Your task to perform on an android device: Open Android settings Image 0: 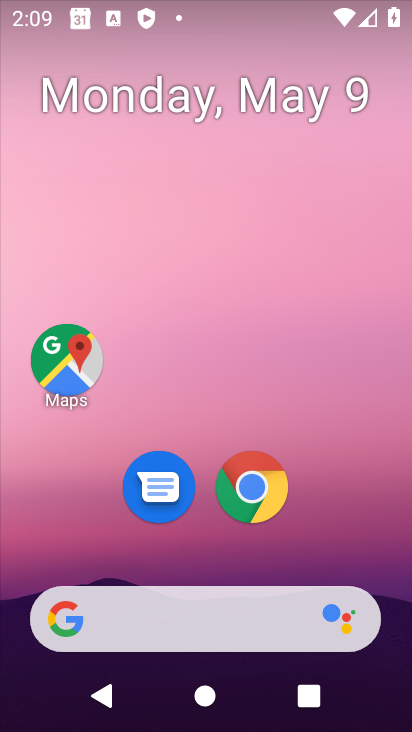
Step 0: drag from (319, 529) to (279, 66)
Your task to perform on an android device: Open Android settings Image 1: 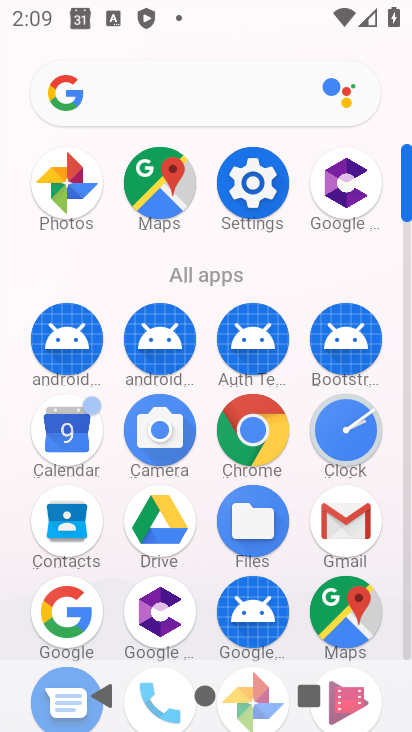
Step 1: click (258, 172)
Your task to perform on an android device: Open Android settings Image 2: 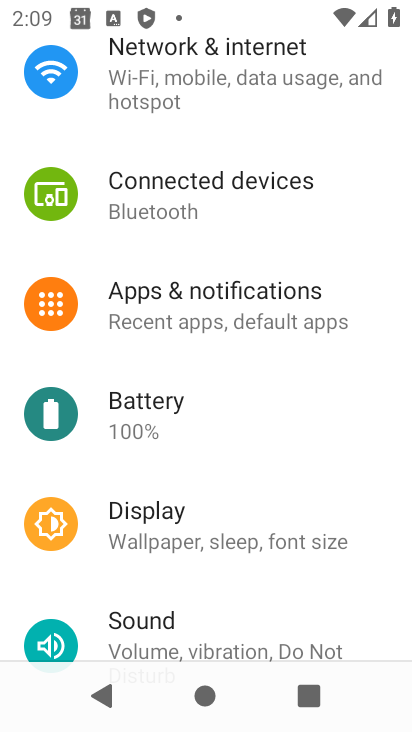
Step 2: drag from (261, 533) to (192, 78)
Your task to perform on an android device: Open Android settings Image 3: 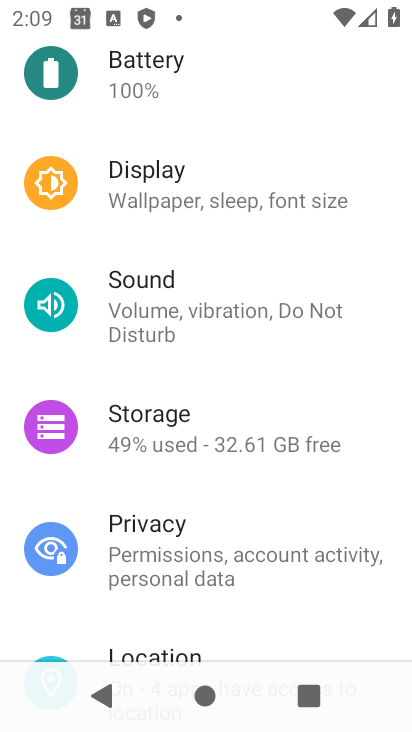
Step 3: drag from (238, 532) to (229, 51)
Your task to perform on an android device: Open Android settings Image 4: 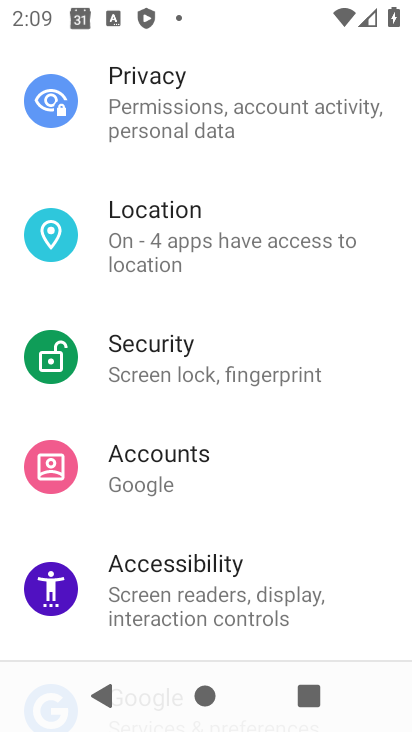
Step 4: drag from (266, 519) to (283, 88)
Your task to perform on an android device: Open Android settings Image 5: 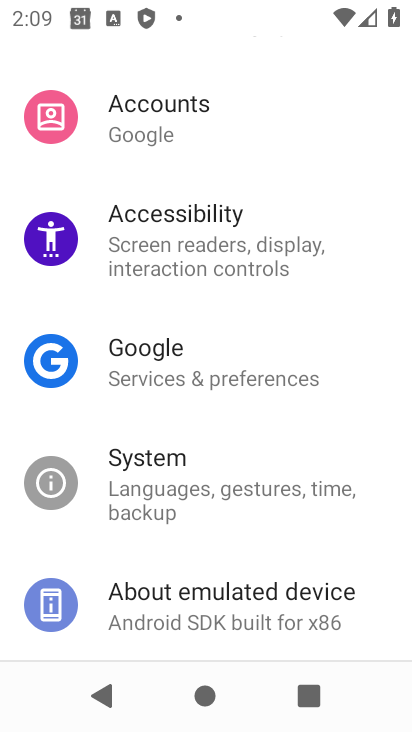
Step 5: click (263, 595)
Your task to perform on an android device: Open Android settings Image 6: 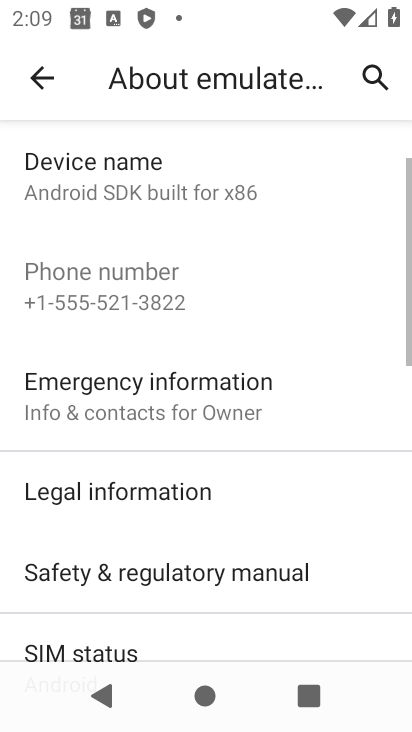
Step 6: task complete